Your task to perform on an android device: set default search engine in the chrome app Image 0: 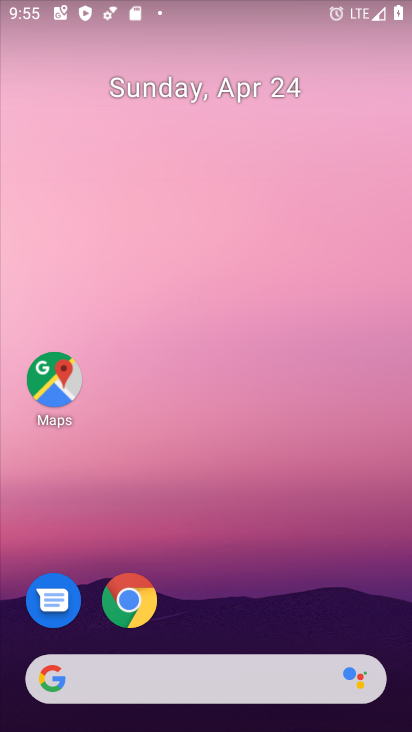
Step 0: click (132, 592)
Your task to perform on an android device: set default search engine in the chrome app Image 1: 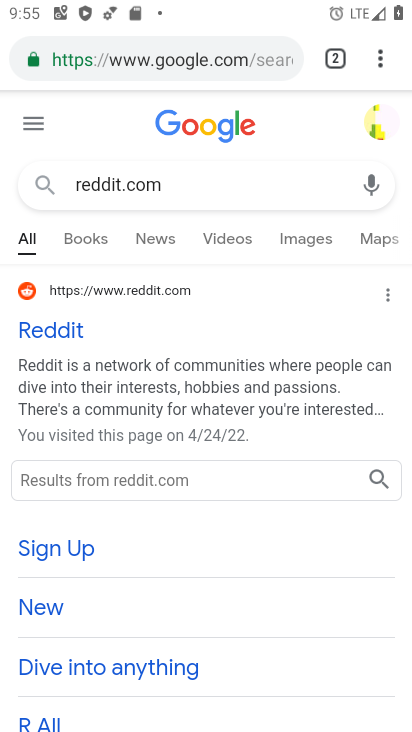
Step 1: click (376, 61)
Your task to perform on an android device: set default search engine in the chrome app Image 2: 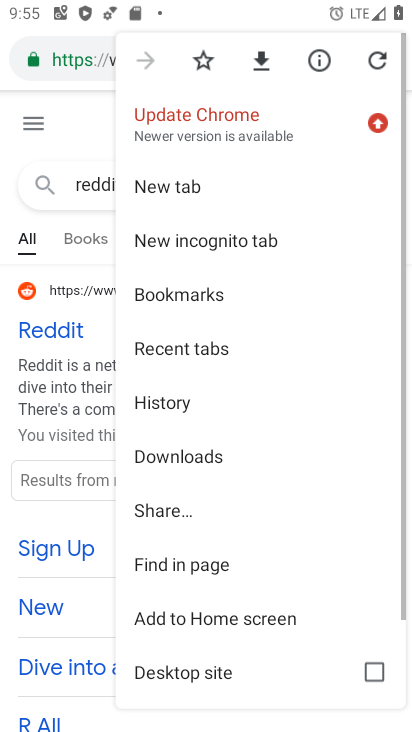
Step 2: drag from (188, 551) to (212, 257)
Your task to perform on an android device: set default search engine in the chrome app Image 3: 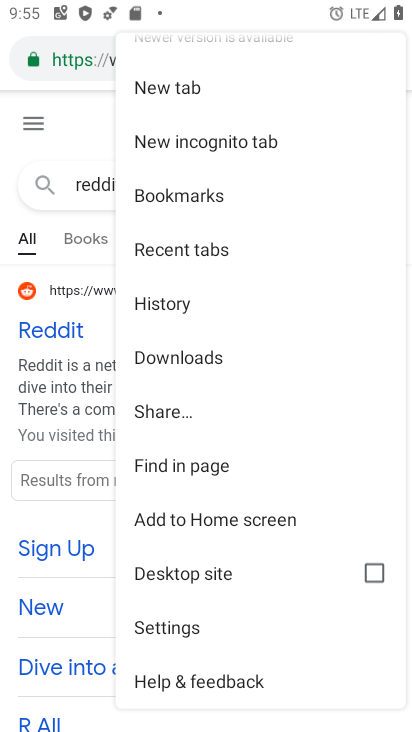
Step 3: click (165, 624)
Your task to perform on an android device: set default search engine in the chrome app Image 4: 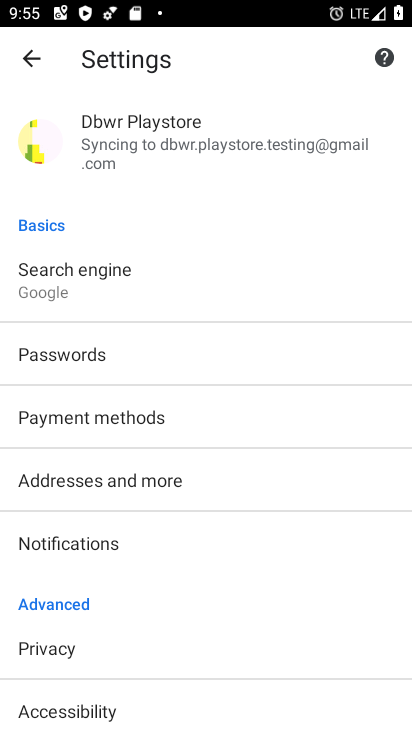
Step 4: click (109, 291)
Your task to perform on an android device: set default search engine in the chrome app Image 5: 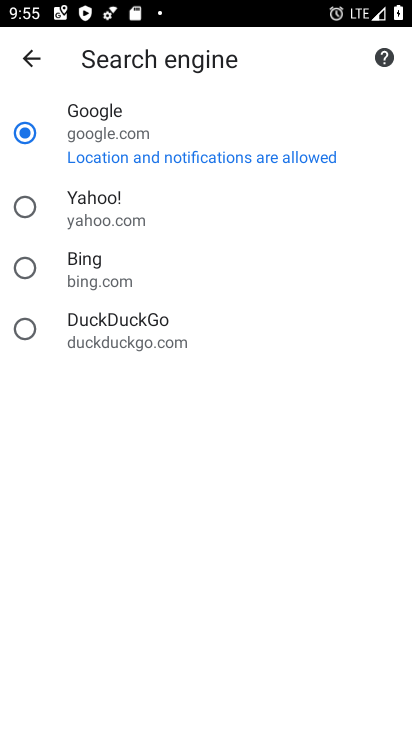
Step 5: click (381, 58)
Your task to perform on an android device: set default search engine in the chrome app Image 6: 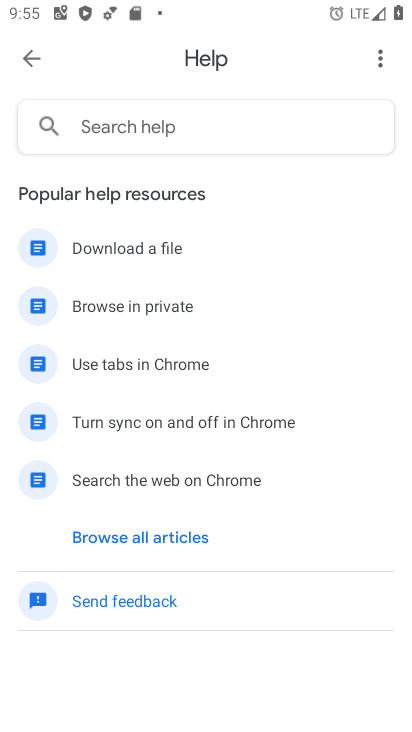
Step 6: press back button
Your task to perform on an android device: set default search engine in the chrome app Image 7: 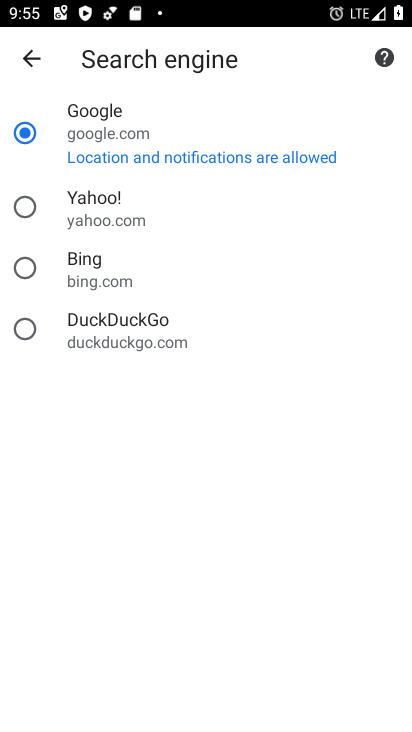
Step 7: click (131, 159)
Your task to perform on an android device: set default search engine in the chrome app Image 8: 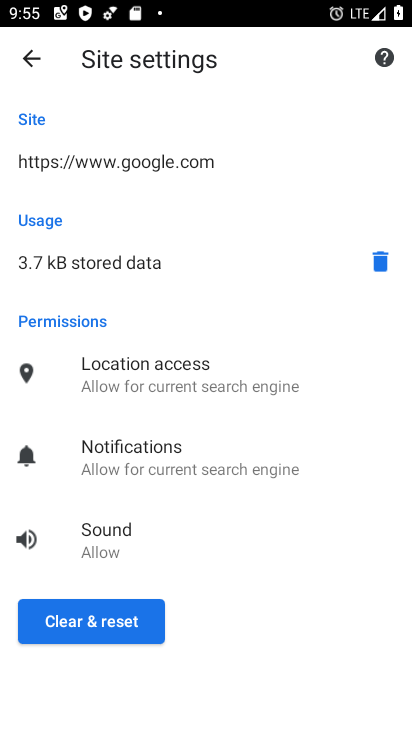
Step 8: click (372, 257)
Your task to perform on an android device: set default search engine in the chrome app Image 9: 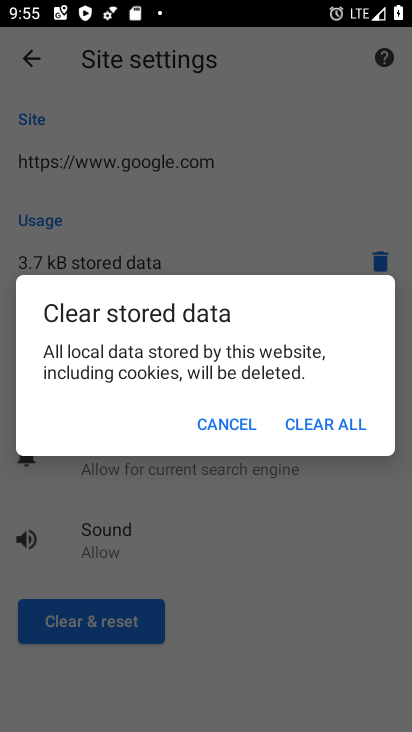
Step 9: click (311, 429)
Your task to perform on an android device: set default search engine in the chrome app Image 10: 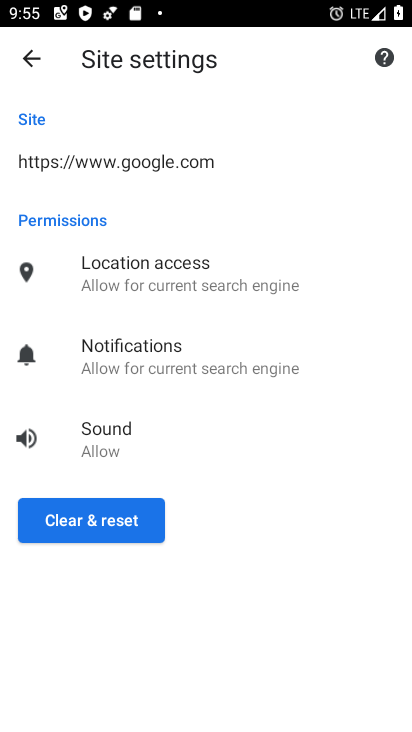
Step 10: click (98, 517)
Your task to perform on an android device: set default search engine in the chrome app Image 11: 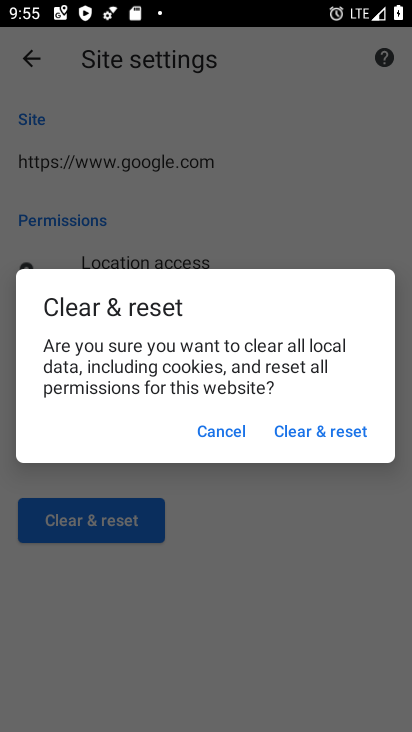
Step 11: click (214, 420)
Your task to perform on an android device: set default search engine in the chrome app Image 12: 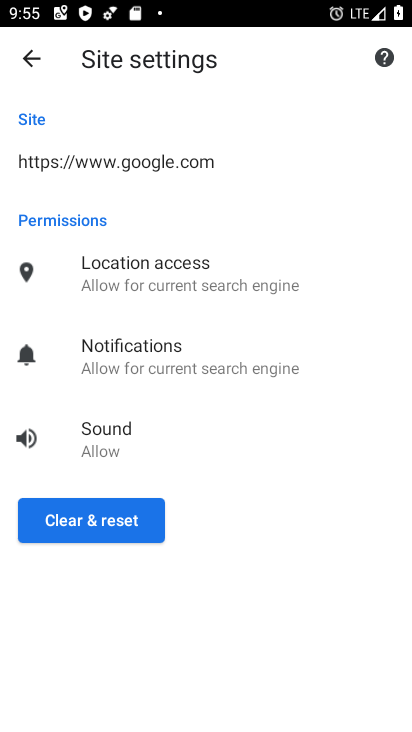
Step 12: click (33, 59)
Your task to perform on an android device: set default search engine in the chrome app Image 13: 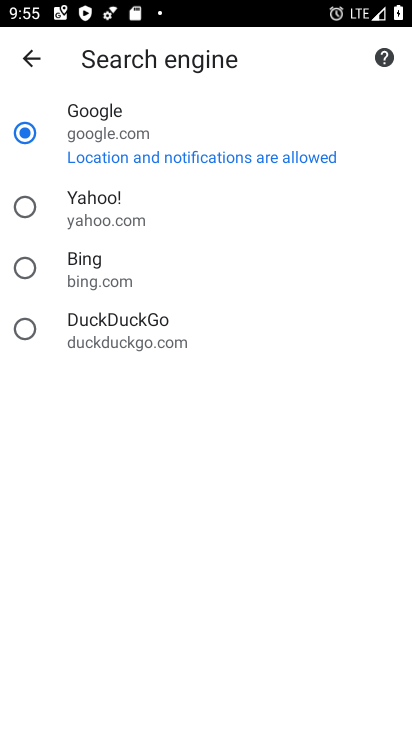
Step 13: task complete